Your task to perform on an android device: Show the shopping cart on newegg. Add razer thresher to the cart on newegg Image 0: 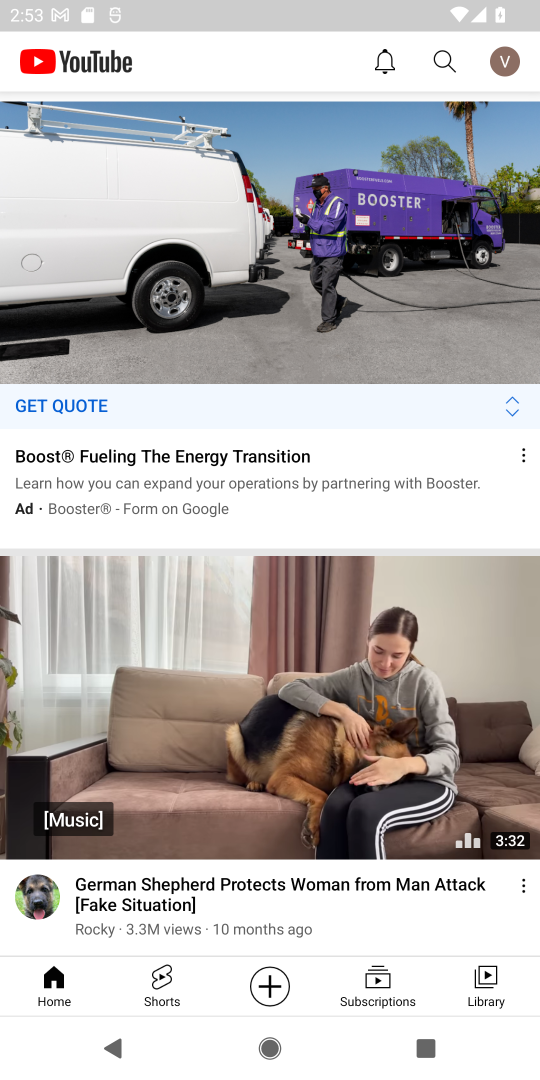
Step 0: press home button
Your task to perform on an android device: Show the shopping cart on newegg. Add razer thresher to the cart on newegg Image 1: 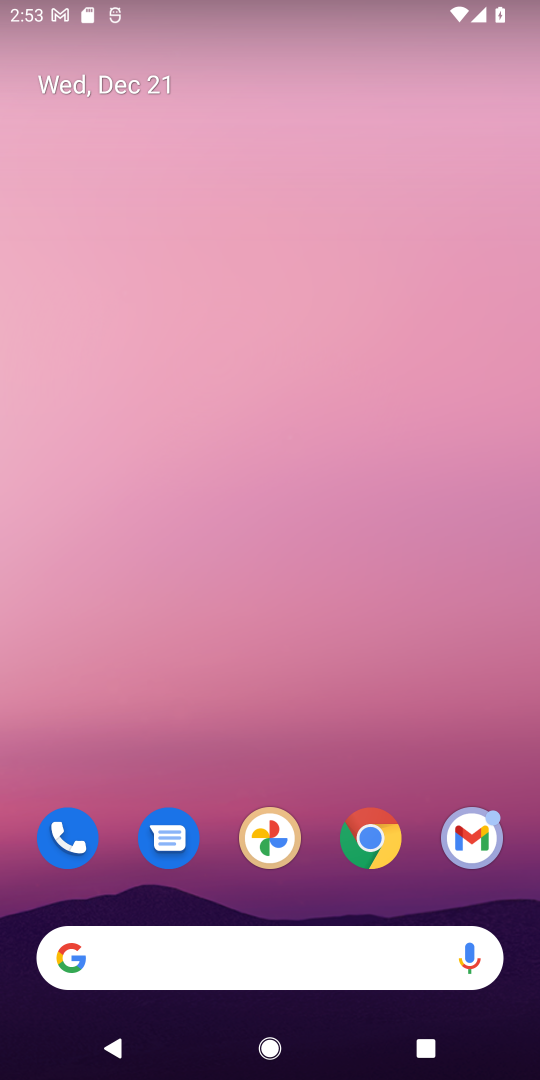
Step 1: click (385, 853)
Your task to perform on an android device: Show the shopping cart on newegg. Add razer thresher to the cart on newegg Image 2: 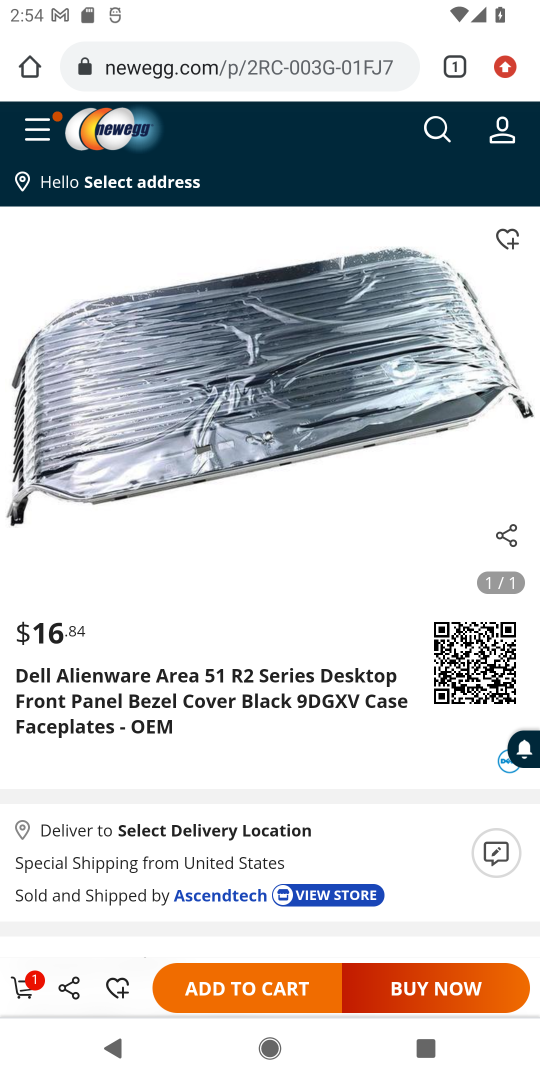
Step 2: click (226, 1000)
Your task to perform on an android device: Show the shopping cart on newegg. Add razer thresher to the cart on newegg Image 3: 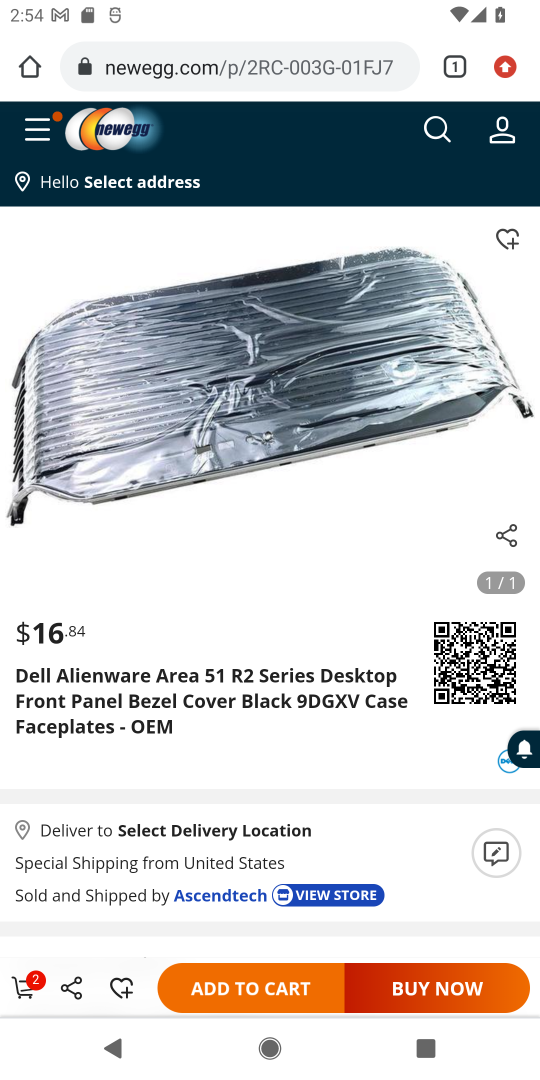
Step 3: task complete